Your task to perform on an android device: change your default location settings in chrome Image 0: 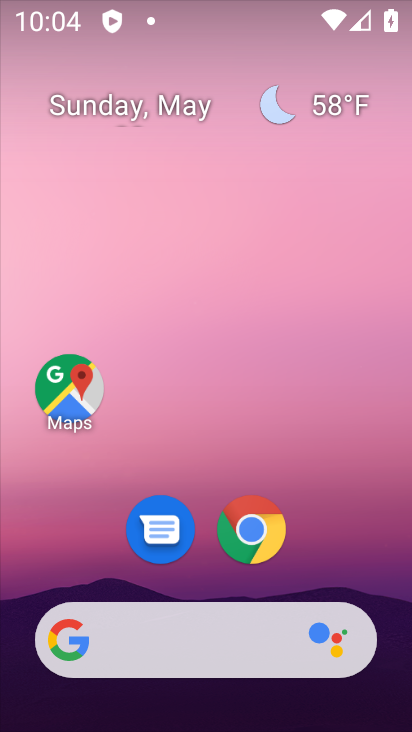
Step 0: click (259, 526)
Your task to perform on an android device: change your default location settings in chrome Image 1: 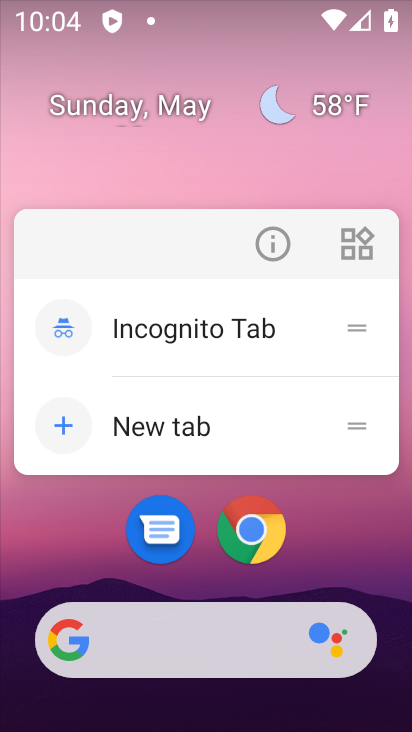
Step 1: click (237, 537)
Your task to perform on an android device: change your default location settings in chrome Image 2: 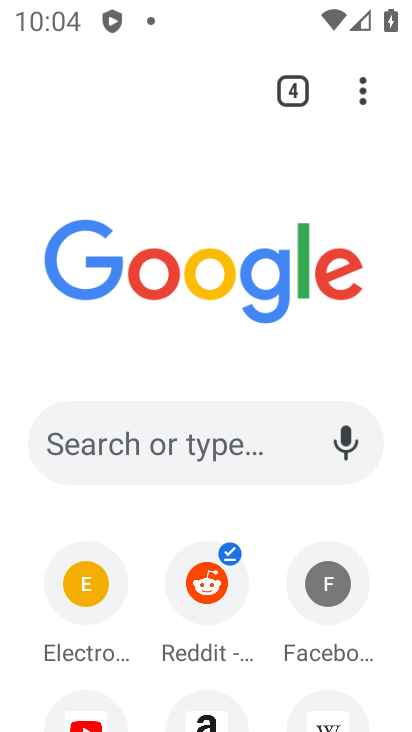
Step 2: click (352, 87)
Your task to perform on an android device: change your default location settings in chrome Image 3: 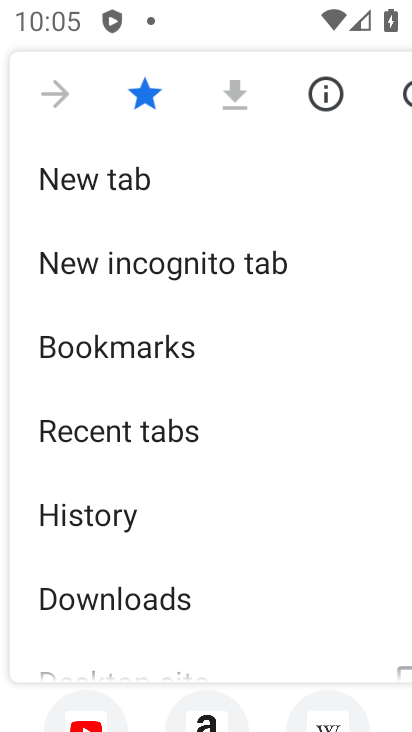
Step 3: drag from (143, 543) to (180, 200)
Your task to perform on an android device: change your default location settings in chrome Image 4: 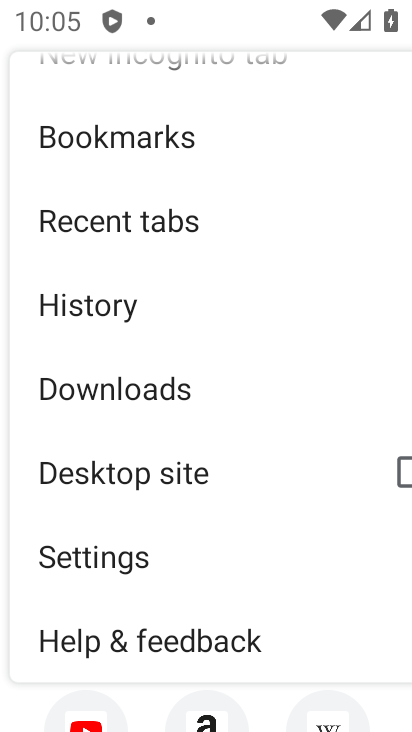
Step 4: click (129, 558)
Your task to perform on an android device: change your default location settings in chrome Image 5: 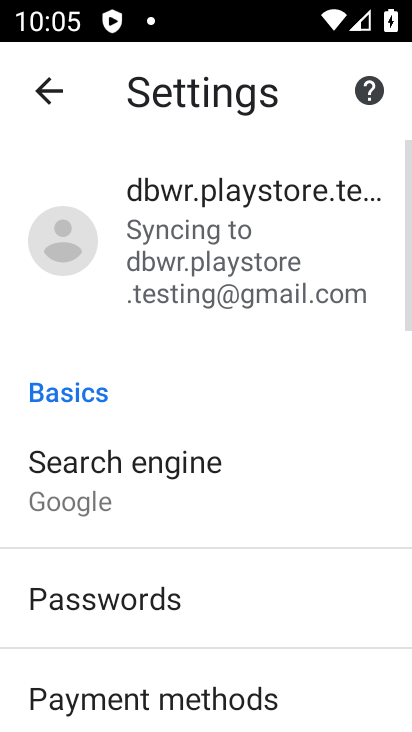
Step 5: drag from (152, 609) to (191, 185)
Your task to perform on an android device: change your default location settings in chrome Image 6: 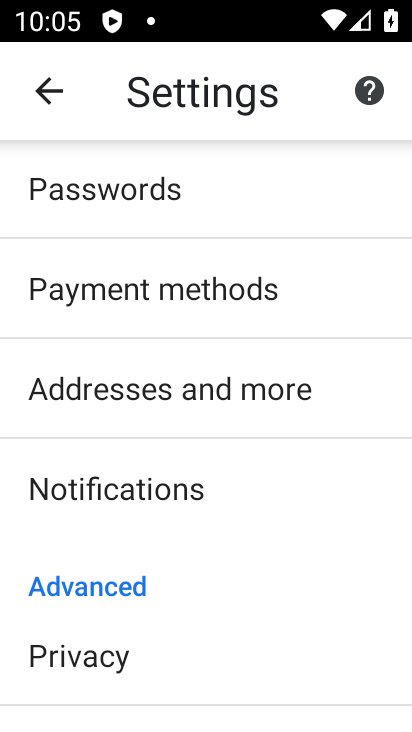
Step 6: drag from (105, 560) to (160, 190)
Your task to perform on an android device: change your default location settings in chrome Image 7: 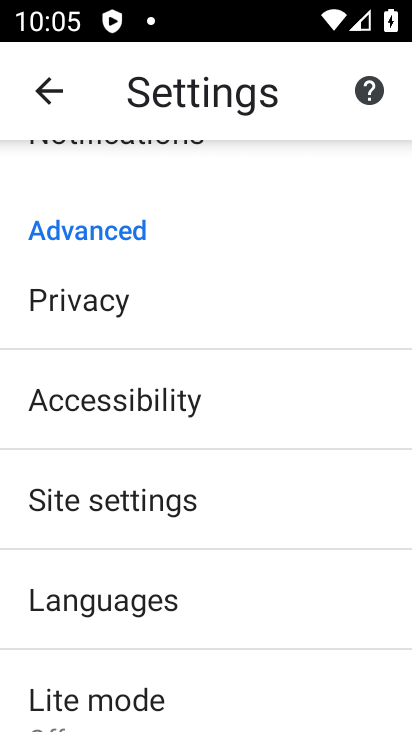
Step 7: click (117, 503)
Your task to perform on an android device: change your default location settings in chrome Image 8: 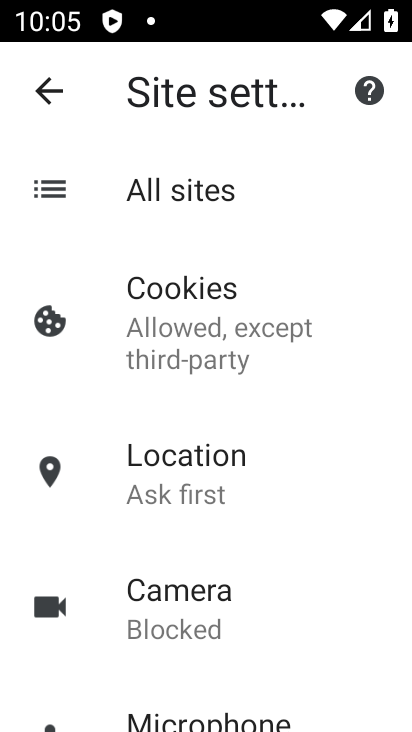
Step 8: click (164, 617)
Your task to perform on an android device: change your default location settings in chrome Image 9: 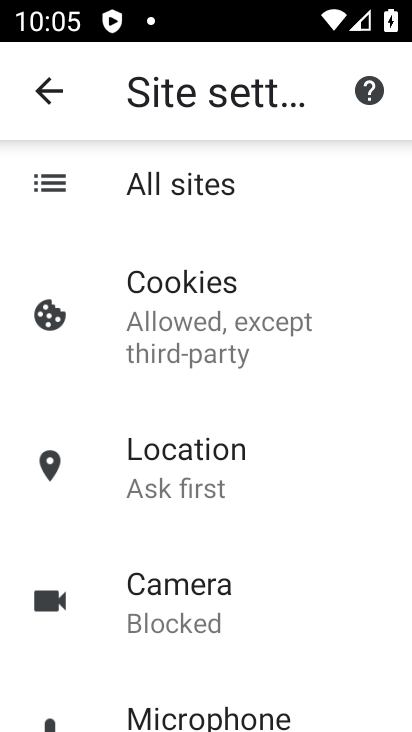
Step 9: click (183, 465)
Your task to perform on an android device: change your default location settings in chrome Image 10: 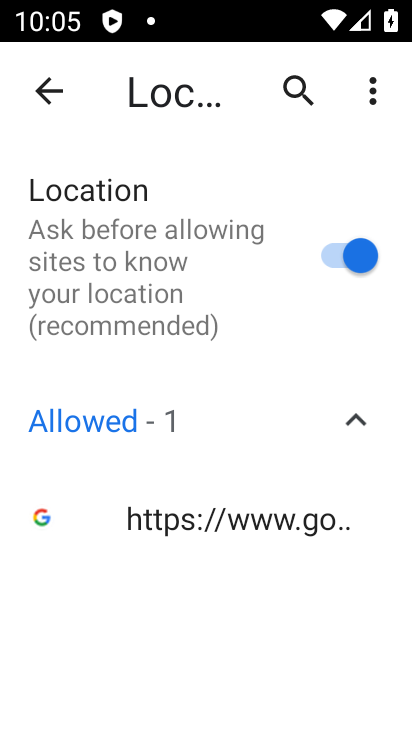
Step 10: click (315, 261)
Your task to perform on an android device: change your default location settings in chrome Image 11: 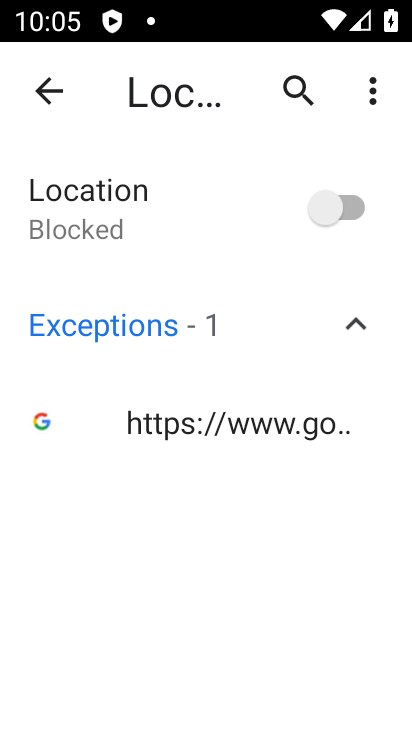
Step 11: task complete